Your task to perform on an android device: check out phone information Image 0: 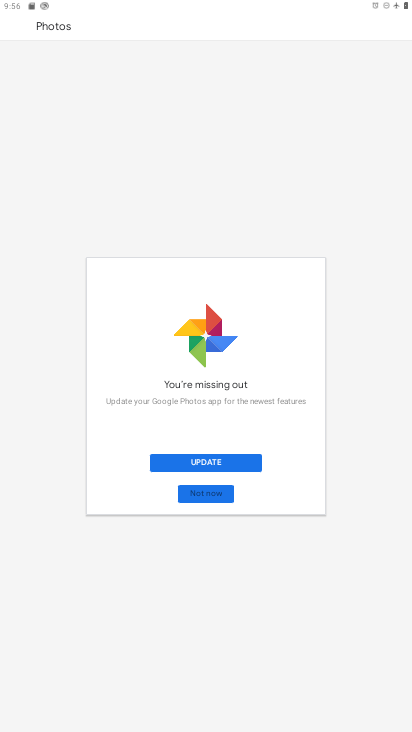
Step 0: press home button
Your task to perform on an android device: check out phone information Image 1: 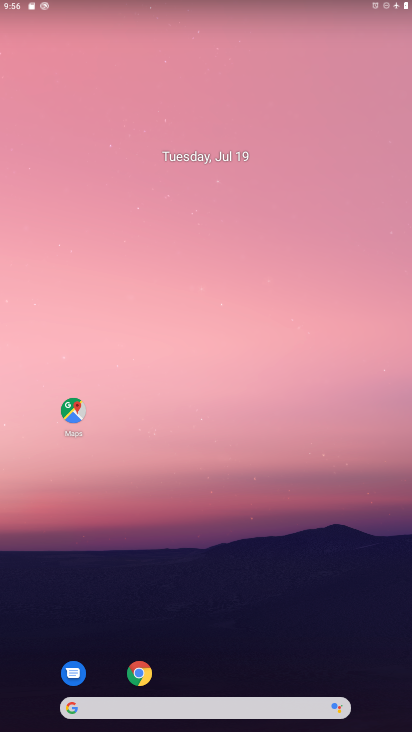
Step 1: drag from (392, 684) to (328, 169)
Your task to perform on an android device: check out phone information Image 2: 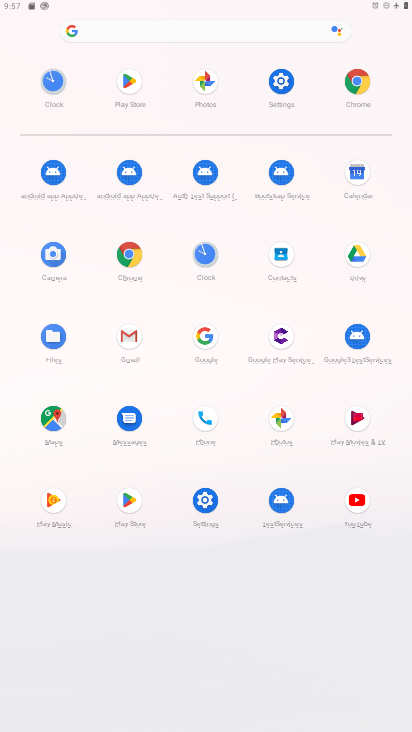
Step 2: click (206, 503)
Your task to perform on an android device: check out phone information Image 3: 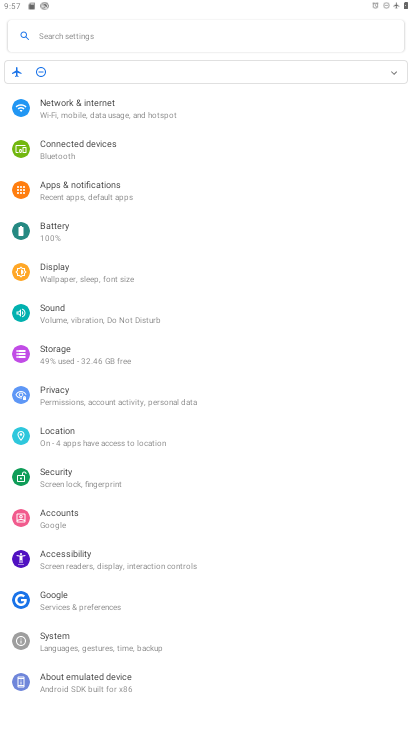
Step 3: drag from (231, 680) to (251, 324)
Your task to perform on an android device: check out phone information Image 4: 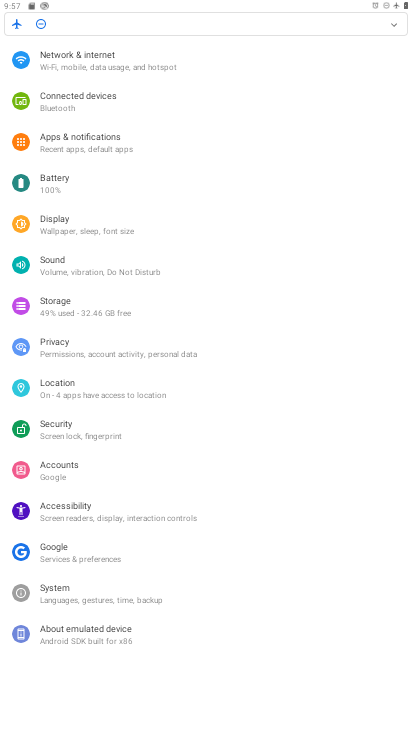
Step 4: click (77, 630)
Your task to perform on an android device: check out phone information Image 5: 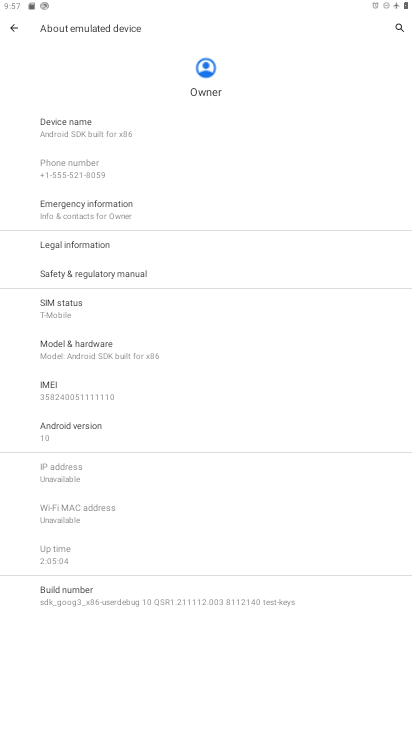
Step 5: task complete